Your task to perform on an android device: manage bookmarks in the chrome app Image 0: 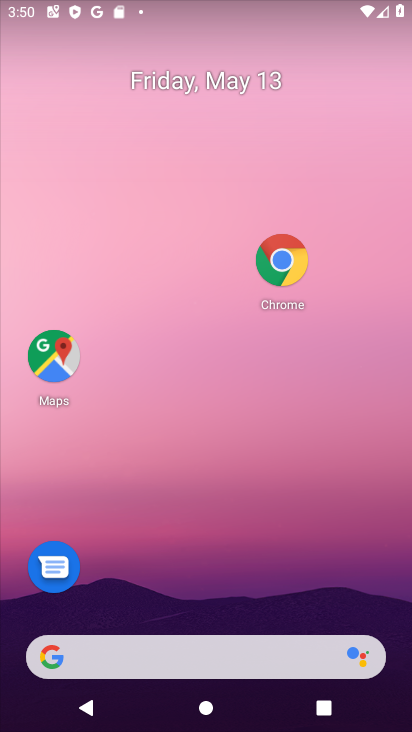
Step 0: drag from (371, 689) to (249, 190)
Your task to perform on an android device: manage bookmarks in the chrome app Image 1: 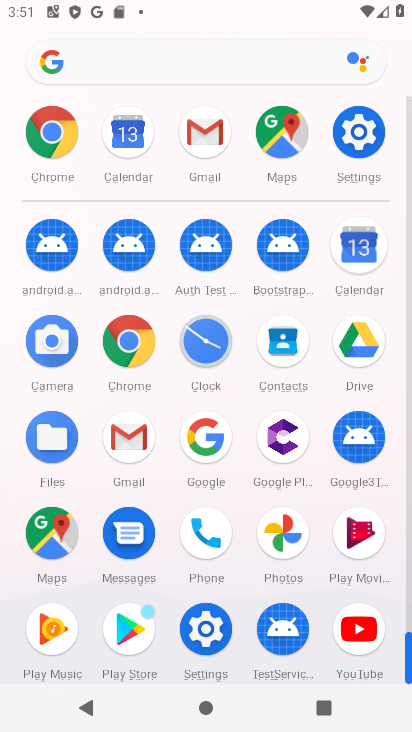
Step 1: click (65, 135)
Your task to perform on an android device: manage bookmarks in the chrome app Image 2: 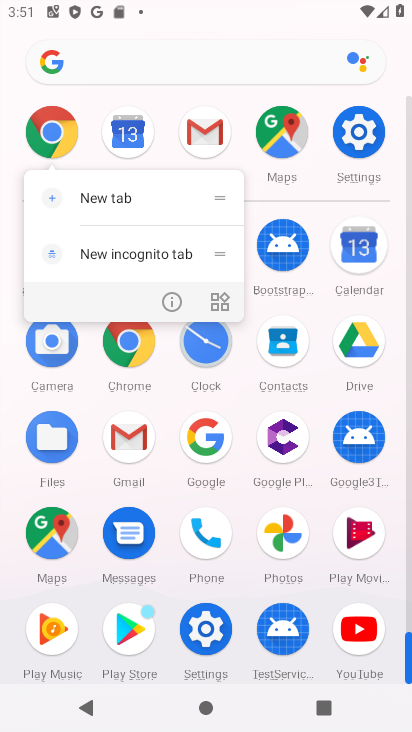
Step 2: click (48, 142)
Your task to perform on an android device: manage bookmarks in the chrome app Image 3: 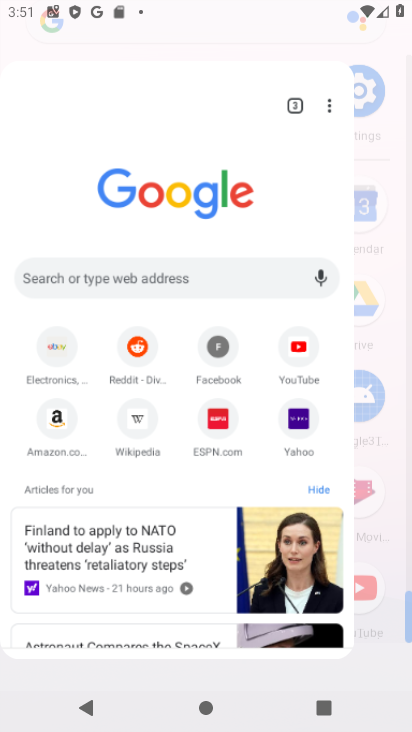
Step 3: click (48, 142)
Your task to perform on an android device: manage bookmarks in the chrome app Image 4: 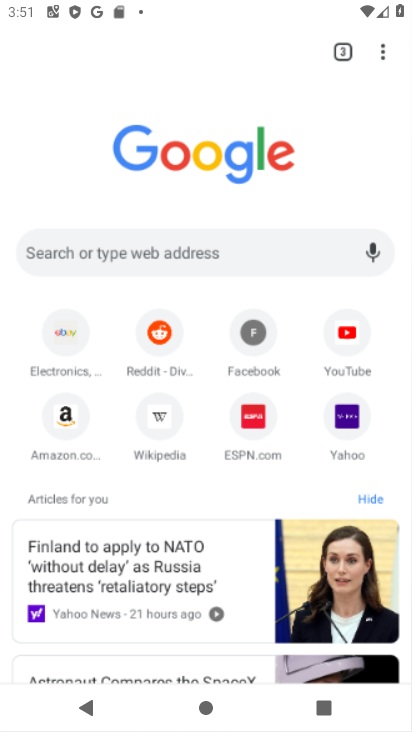
Step 4: click (48, 142)
Your task to perform on an android device: manage bookmarks in the chrome app Image 5: 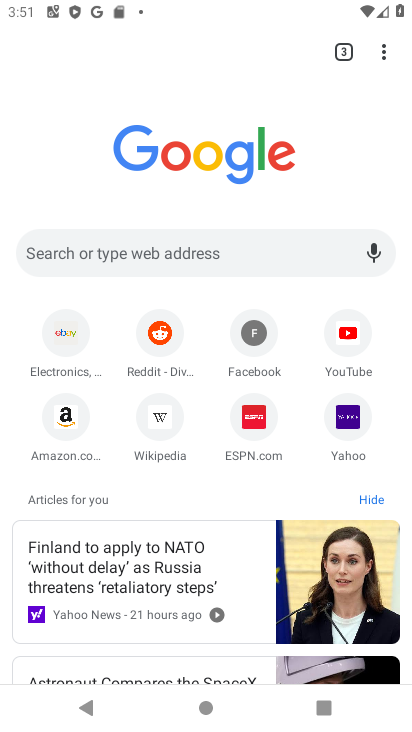
Step 5: task complete